Your task to perform on an android device: turn on wifi Image 0: 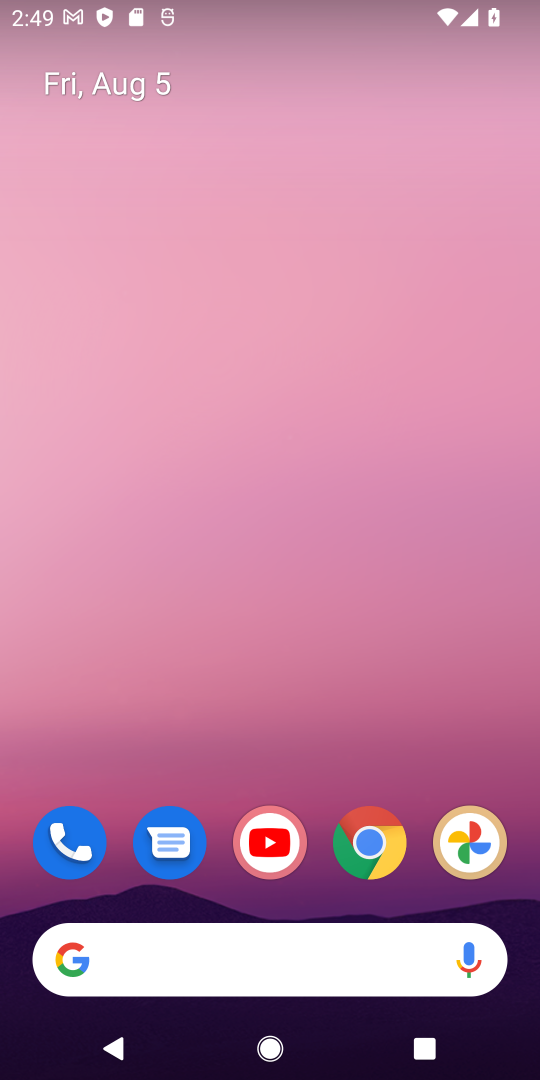
Step 0: drag from (270, 749) to (305, 3)
Your task to perform on an android device: turn on wifi Image 1: 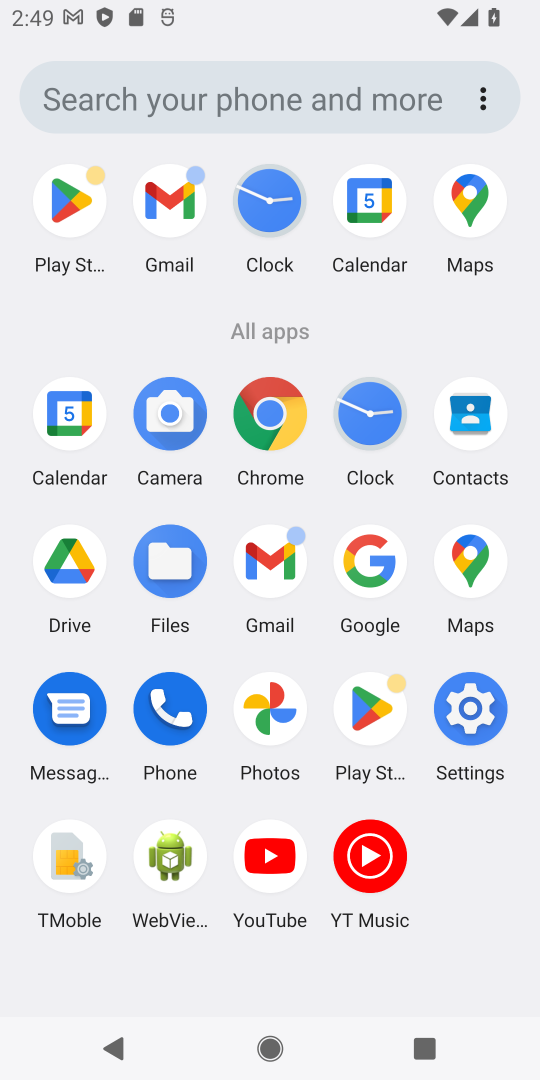
Step 1: click (467, 711)
Your task to perform on an android device: turn on wifi Image 2: 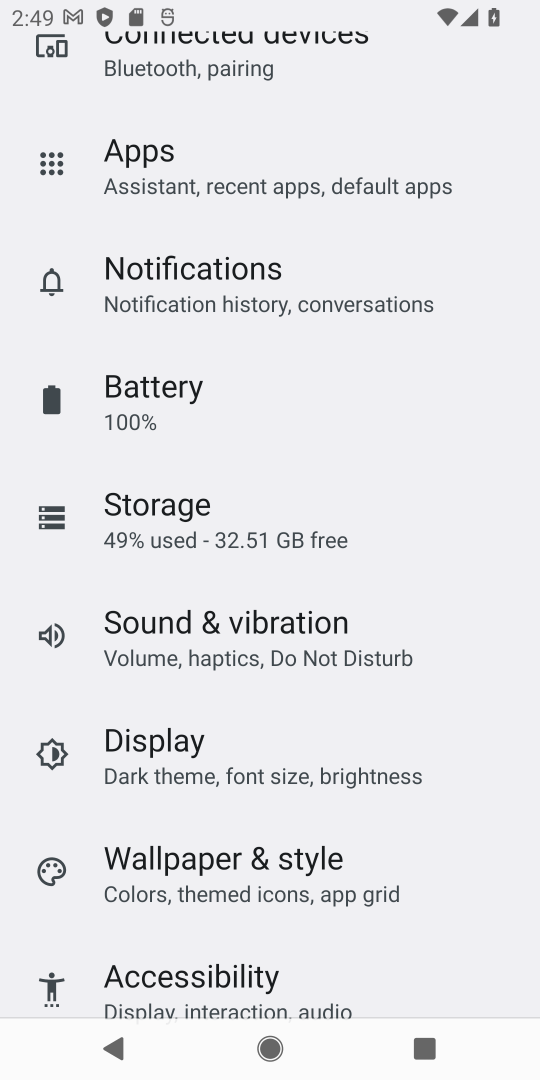
Step 2: drag from (336, 223) to (290, 821)
Your task to perform on an android device: turn on wifi Image 3: 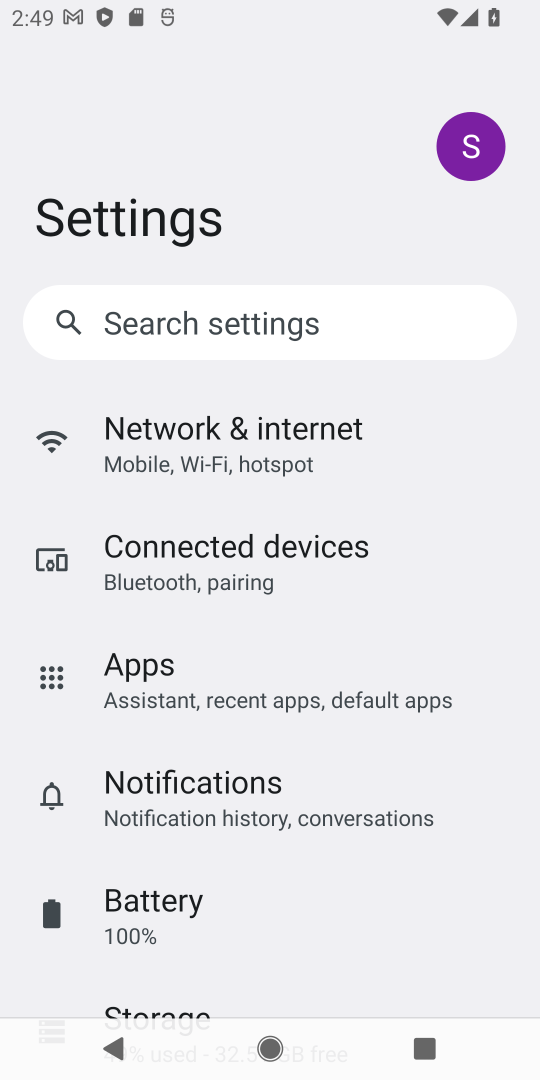
Step 3: click (277, 453)
Your task to perform on an android device: turn on wifi Image 4: 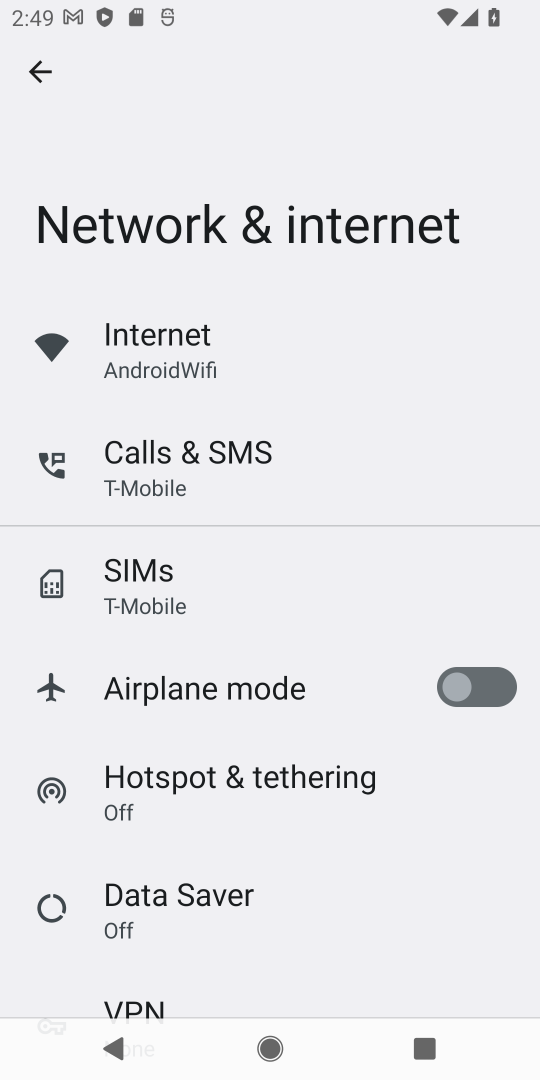
Step 4: click (197, 342)
Your task to perform on an android device: turn on wifi Image 5: 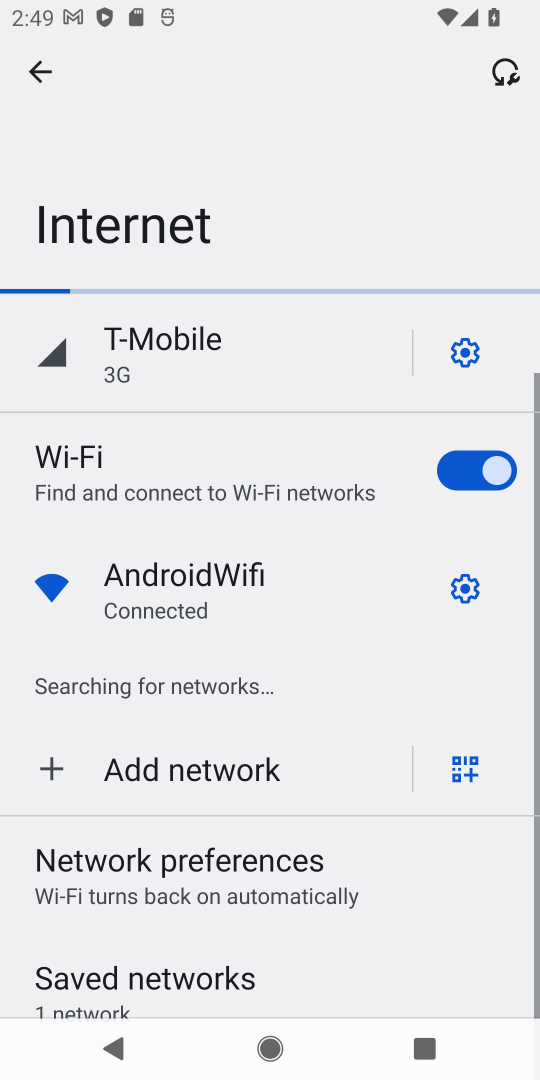
Step 5: task complete